Your task to perform on an android device: turn on translation in the chrome app Image 0: 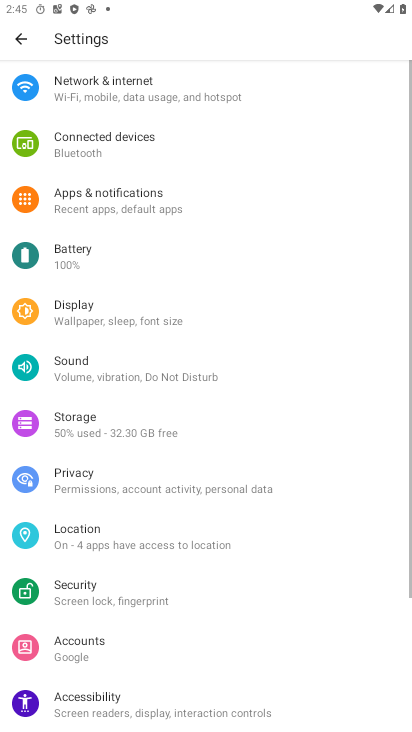
Step 0: press home button
Your task to perform on an android device: turn on translation in the chrome app Image 1: 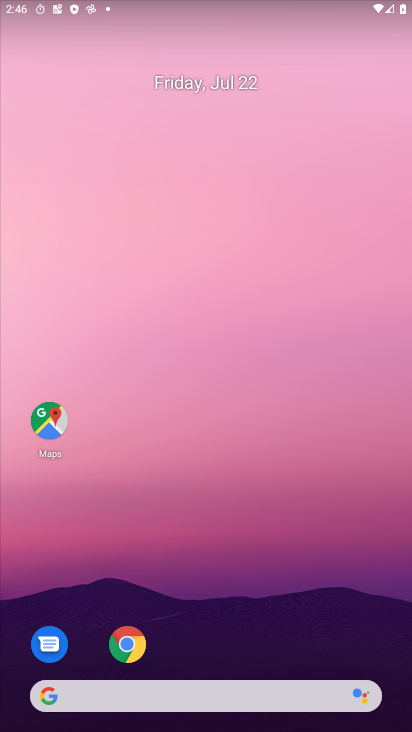
Step 1: drag from (222, 692) to (204, 251)
Your task to perform on an android device: turn on translation in the chrome app Image 2: 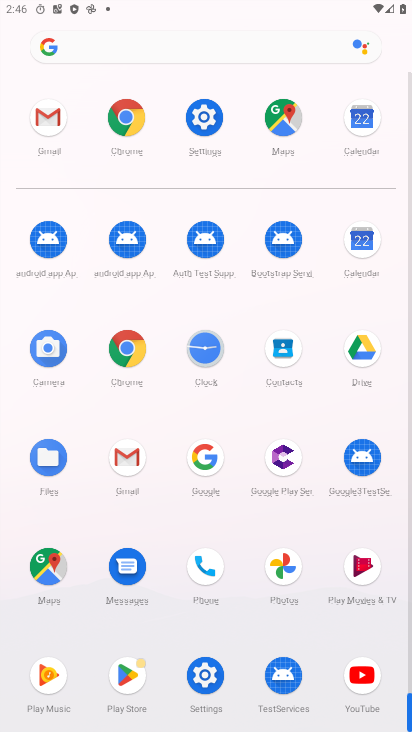
Step 2: click (138, 132)
Your task to perform on an android device: turn on translation in the chrome app Image 3: 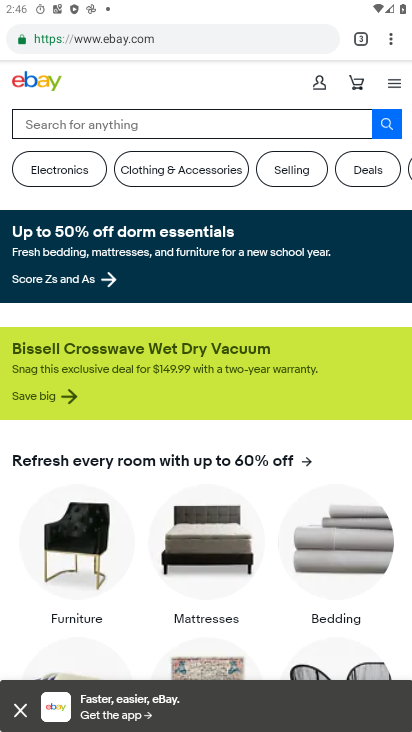
Step 3: click (392, 47)
Your task to perform on an android device: turn on translation in the chrome app Image 4: 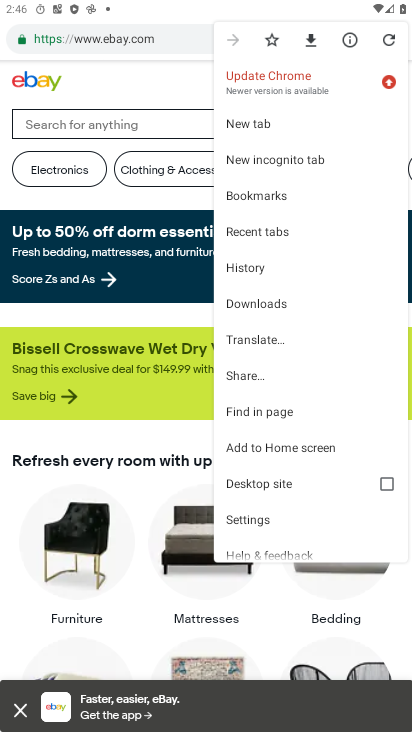
Step 4: click (260, 334)
Your task to perform on an android device: turn on translation in the chrome app Image 5: 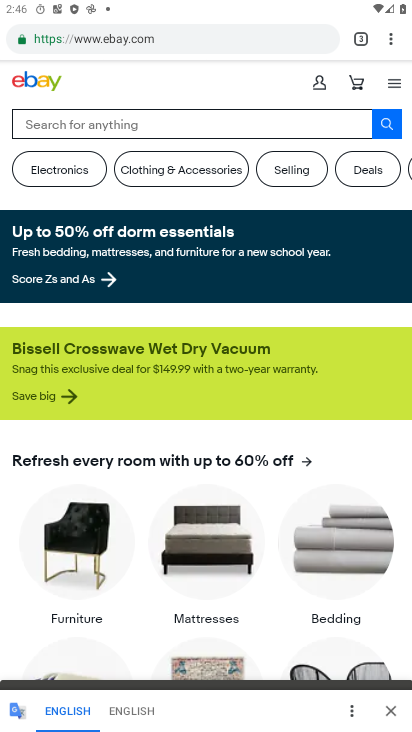
Step 5: click (352, 719)
Your task to perform on an android device: turn on translation in the chrome app Image 6: 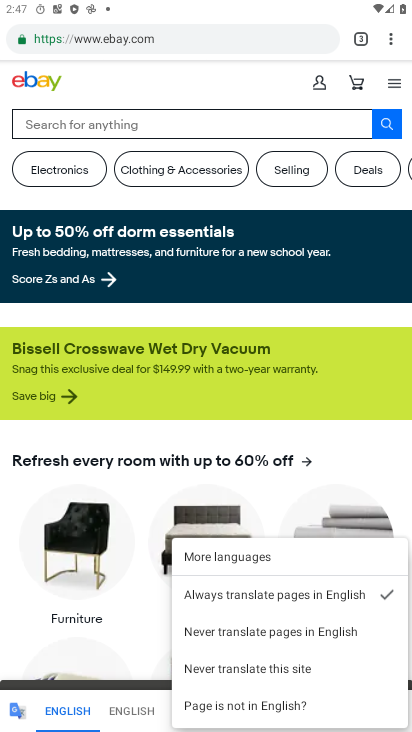
Step 6: task complete